Your task to perform on an android device: Open my contact list Image 0: 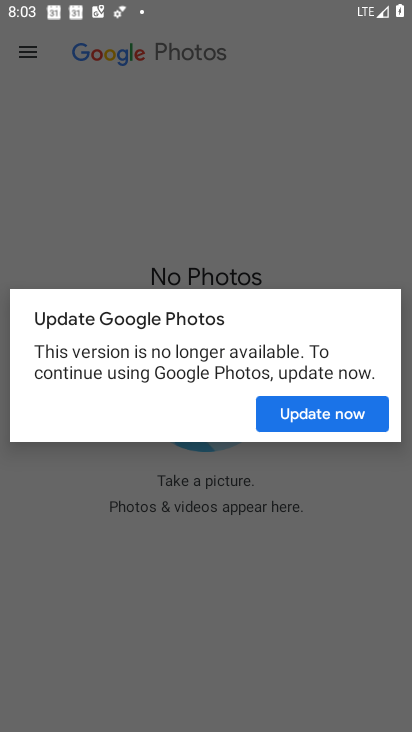
Step 0: press home button
Your task to perform on an android device: Open my contact list Image 1: 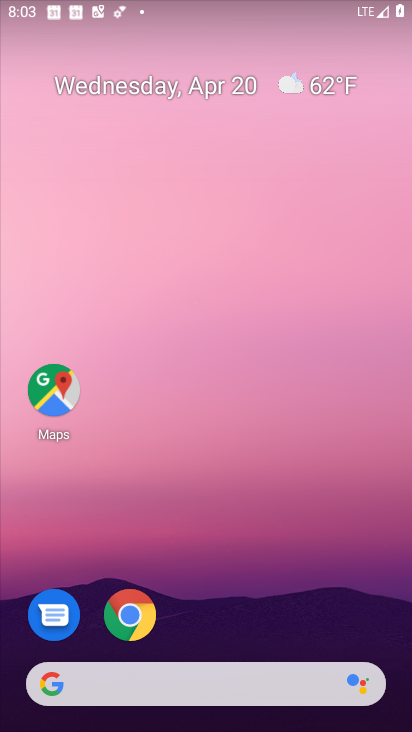
Step 1: drag from (194, 617) to (260, 11)
Your task to perform on an android device: Open my contact list Image 2: 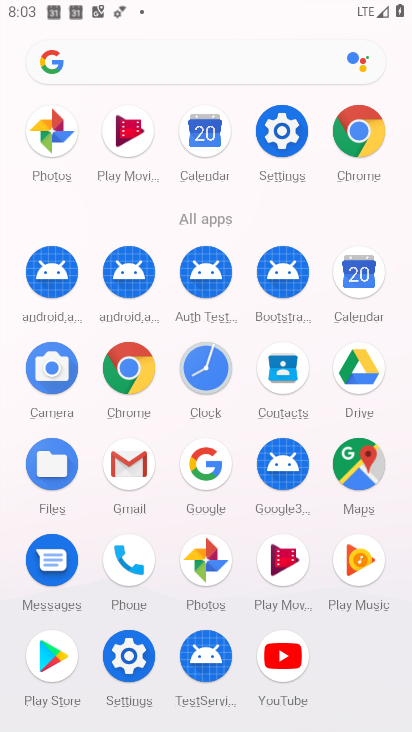
Step 2: click (289, 375)
Your task to perform on an android device: Open my contact list Image 3: 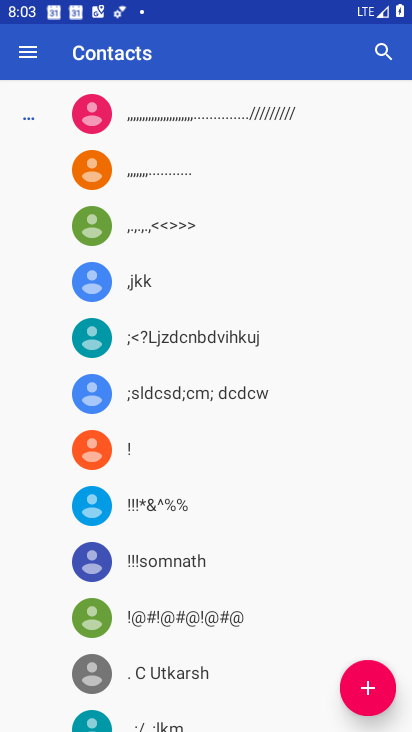
Step 3: task complete